Your task to perform on an android device: Open wifi settings Image 0: 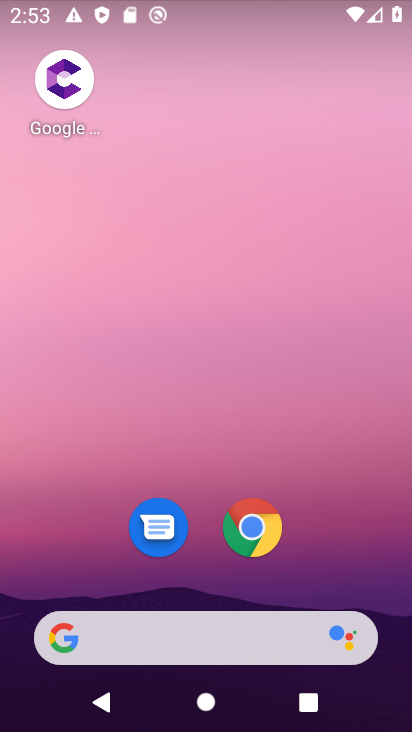
Step 0: drag from (223, 577) to (103, 109)
Your task to perform on an android device: Open wifi settings Image 1: 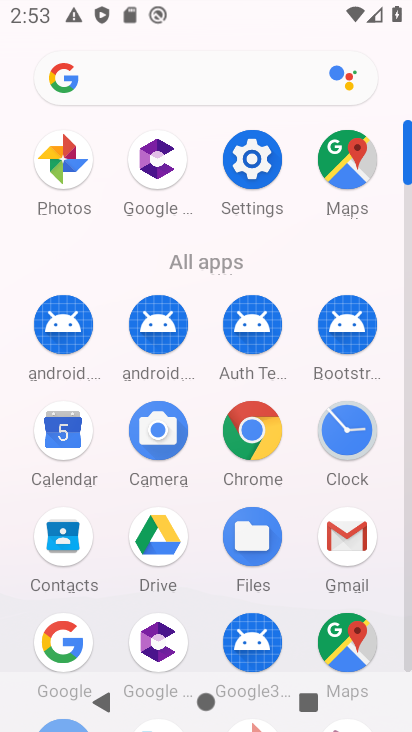
Step 1: drag from (202, 594) to (121, 256)
Your task to perform on an android device: Open wifi settings Image 2: 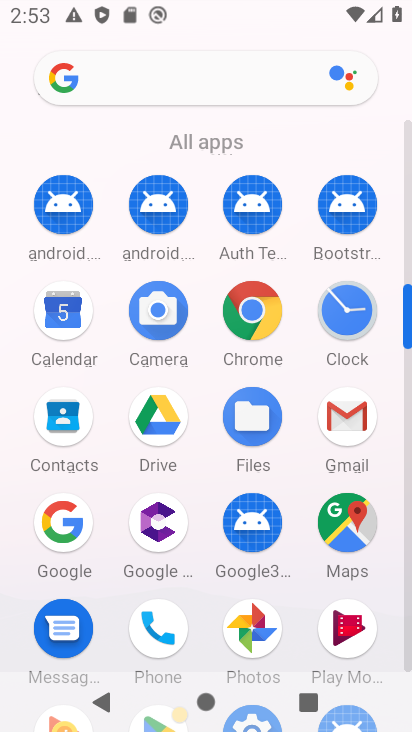
Step 2: drag from (202, 626) to (138, 290)
Your task to perform on an android device: Open wifi settings Image 3: 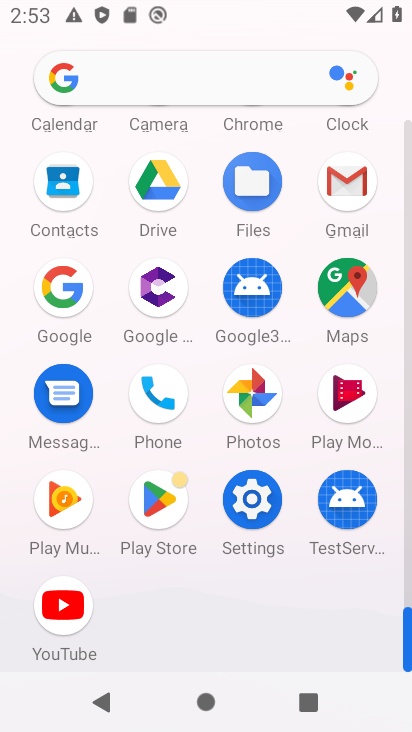
Step 3: click (255, 497)
Your task to perform on an android device: Open wifi settings Image 4: 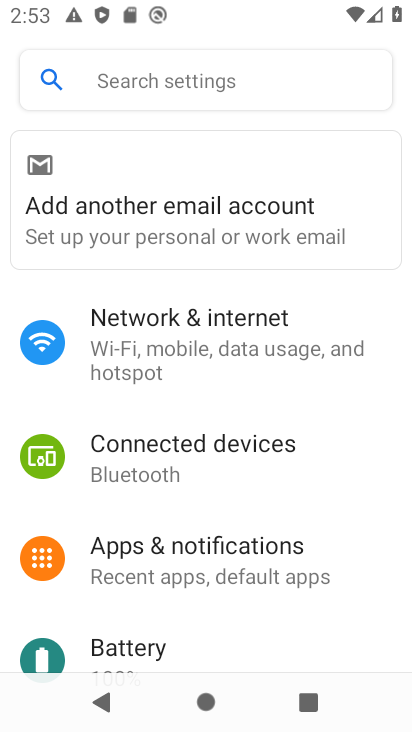
Step 4: click (177, 341)
Your task to perform on an android device: Open wifi settings Image 5: 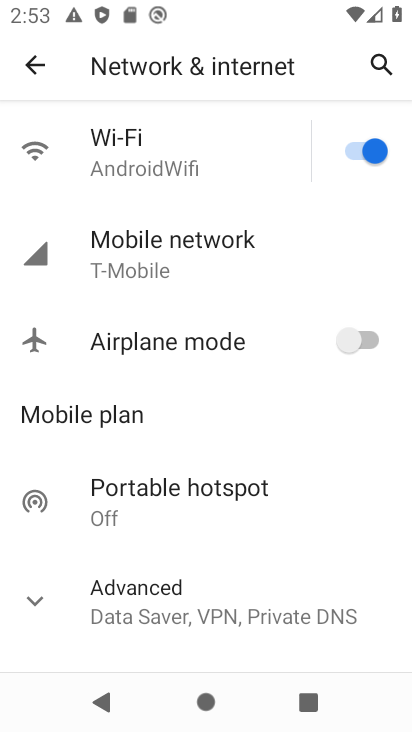
Step 5: click (120, 151)
Your task to perform on an android device: Open wifi settings Image 6: 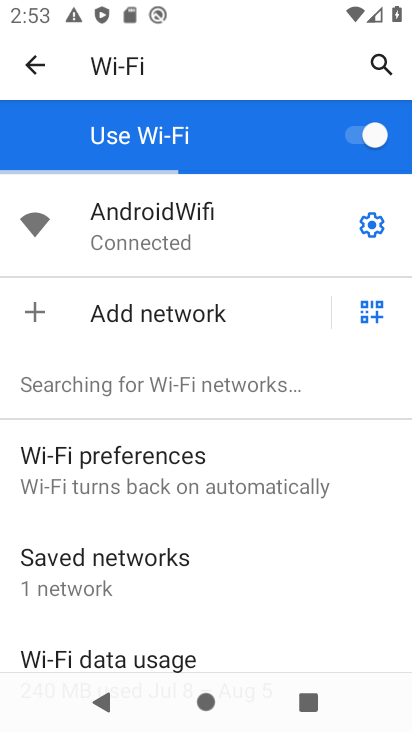
Step 6: task complete